Your task to perform on an android device: turn off smart reply in the gmail app Image 0: 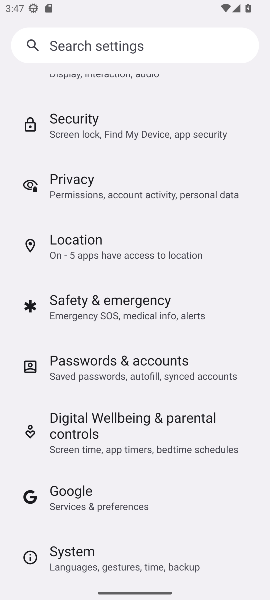
Step 0: press back button
Your task to perform on an android device: turn off smart reply in the gmail app Image 1: 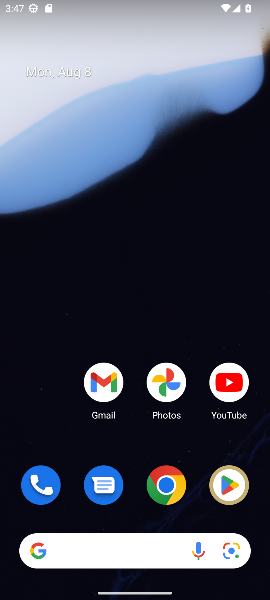
Step 1: drag from (214, 532) to (207, 153)
Your task to perform on an android device: turn off smart reply in the gmail app Image 2: 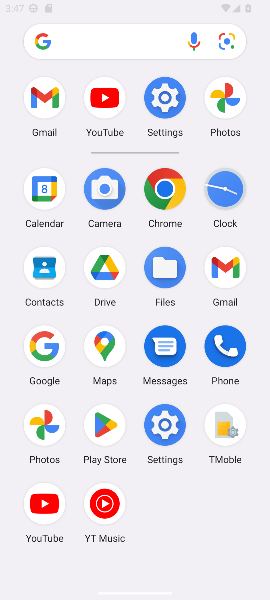
Step 2: drag from (188, 363) to (111, 76)
Your task to perform on an android device: turn off smart reply in the gmail app Image 3: 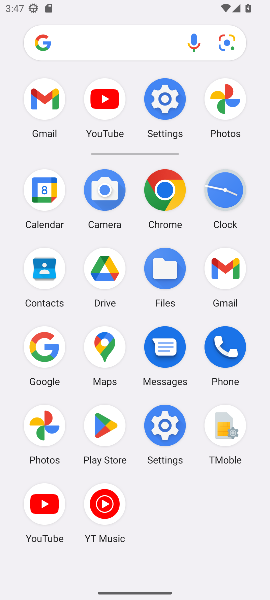
Step 3: click (223, 258)
Your task to perform on an android device: turn off smart reply in the gmail app Image 4: 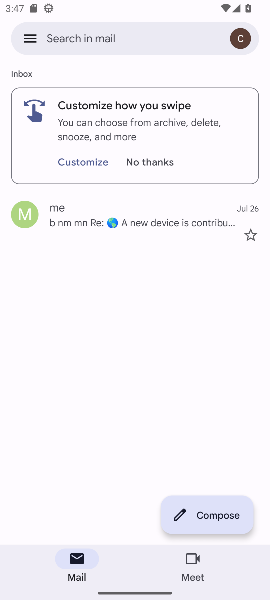
Step 4: press back button
Your task to perform on an android device: turn off smart reply in the gmail app Image 5: 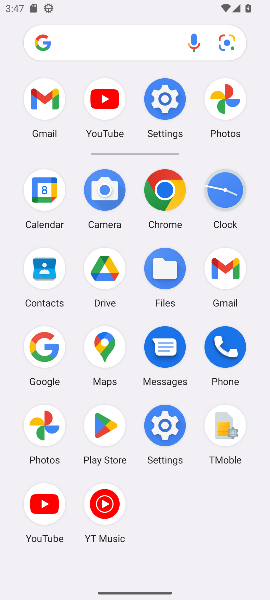
Step 5: click (229, 260)
Your task to perform on an android device: turn off smart reply in the gmail app Image 6: 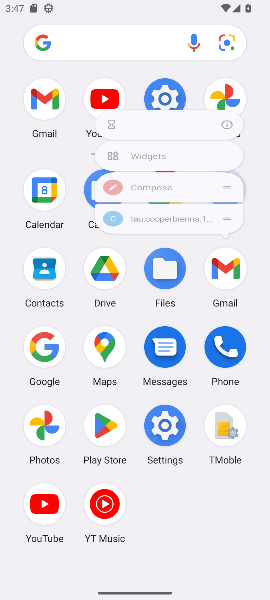
Step 6: click (226, 259)
Your task to perform on an android device: turn off smart reply in the gmail app Image 7: 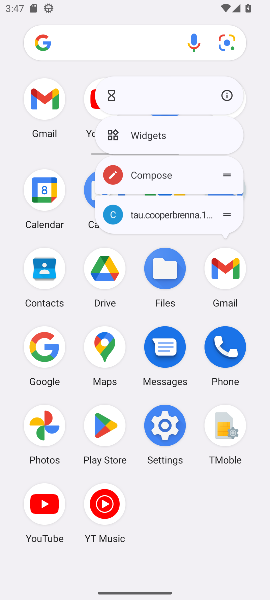
Step 7: click (228, 264)
Your task to perform on an android device: turn off smart reply in the gmail app Image 8: 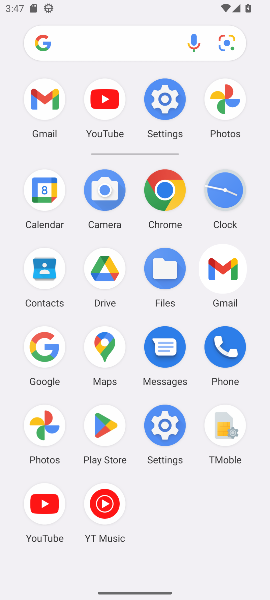
Step 8: click (230, 261)
Your task to perform on an android device: turn off smart reply in the gmail app Image 9: 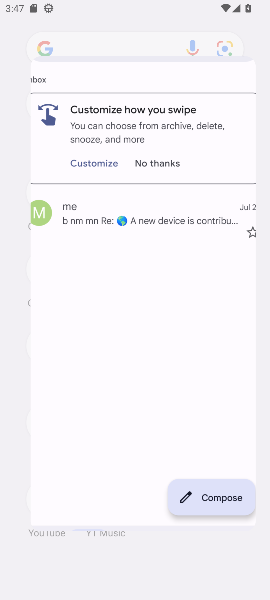
Step 9: click (221, 295)
Your task to perform on an android device: turn off smart reply in the gmail app Image 10: 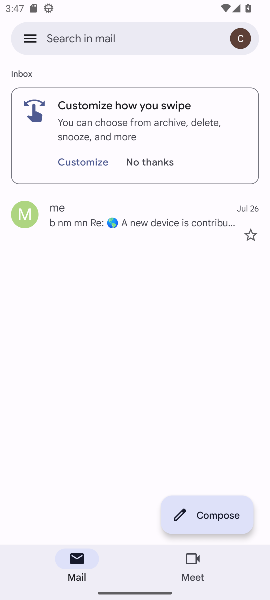
Step 10: click (23, 36)
Your task to perform on an android device: turn off smart reply in the gmail app Image 11: 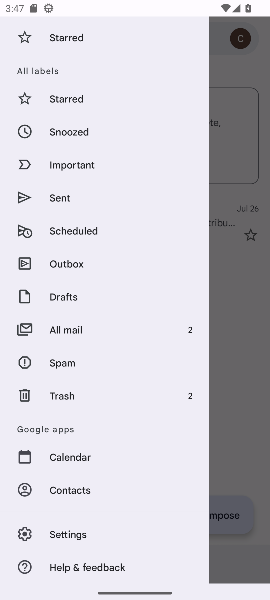
Step 11: click (71, 529)
Your task to perform on an android device: turn off smart reply in the gmail app Image 12: 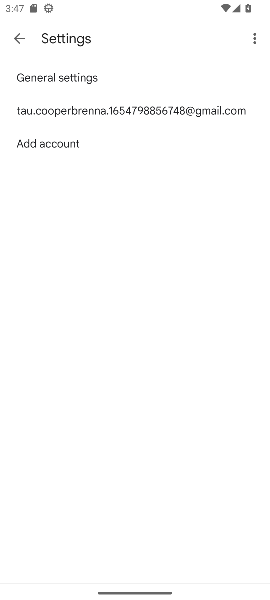
Step 12: click (77, 108)
Your task to perform on an android device: turn off smart reply in the gmail app Image 13: 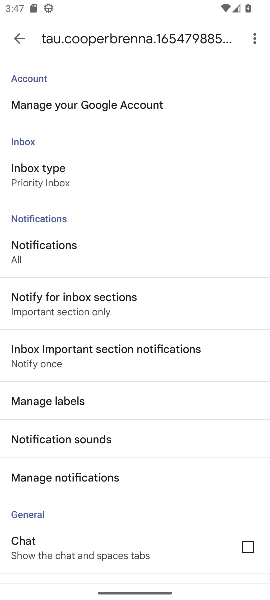
Step 13: drag from (52, 421) to (38, 213)
Your task to perform on an android device: turn off smart reply in the gmail app Image 14: 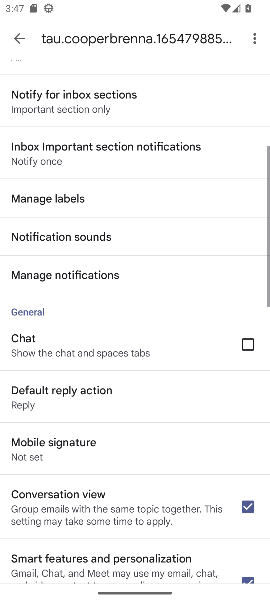
Step 14: drag from (87, 427) to (63, 278)
Your task to perform on an android device: turn off smart reply in the gmail app Image 15: 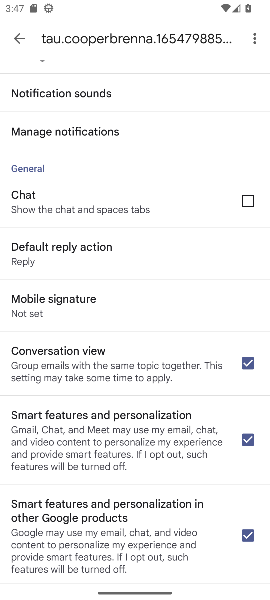
Step 15: drag from (149, 521) to (104, 42)
Your task to perform on an android device: turn off smart reply in the gmail app Image 16: 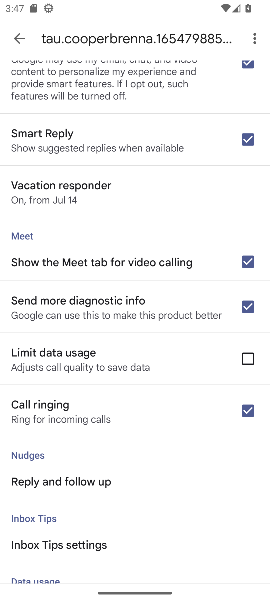
Step 16: click (254, 142)
Your task to perform on an android device: turn off smart reply in the gmail app Image 17: 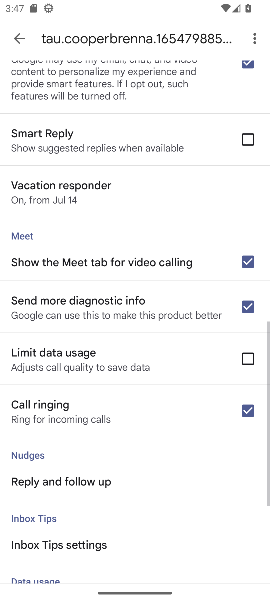
Step 17: task complete